Your task to perform on an android device: Open Google Maps and go to "Timeline" Image 0: 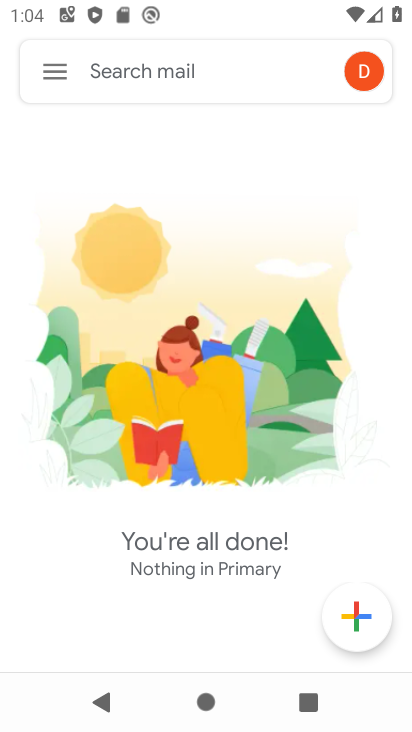
Step 0: press home button
Your task to perform on an android device: Open Google Maps and go to "Timeline" Image 1: 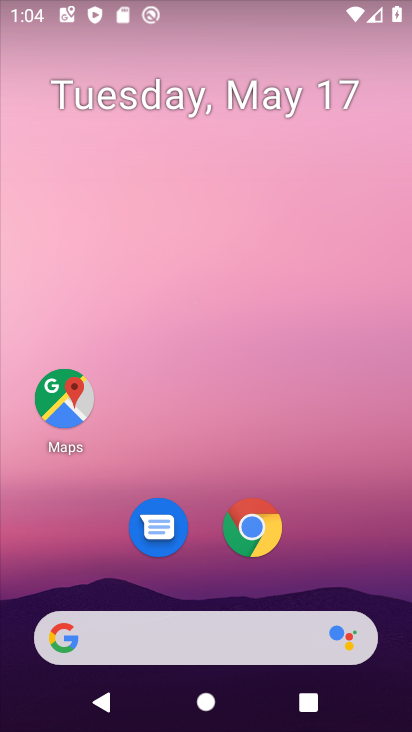
Step 1: drag from (62, 602) to (165, 87)
Your task to perform on an android device: Open Google Maps and go to "Timeline" Image 2: 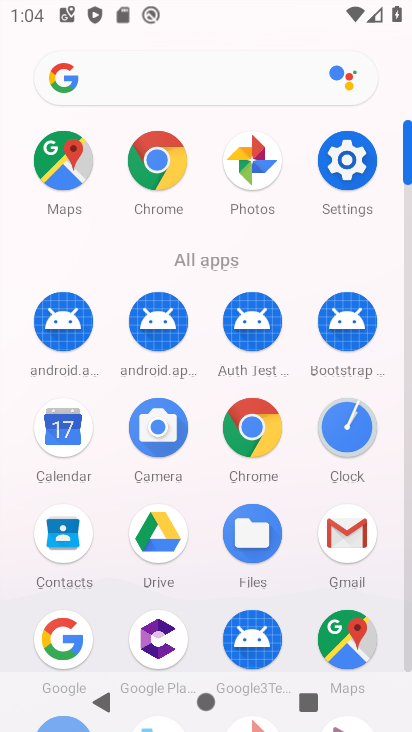
Step 2: click (353, 628)
Your task to perform on an android device: Open Google Maps and go to "Timeline" Image 3: 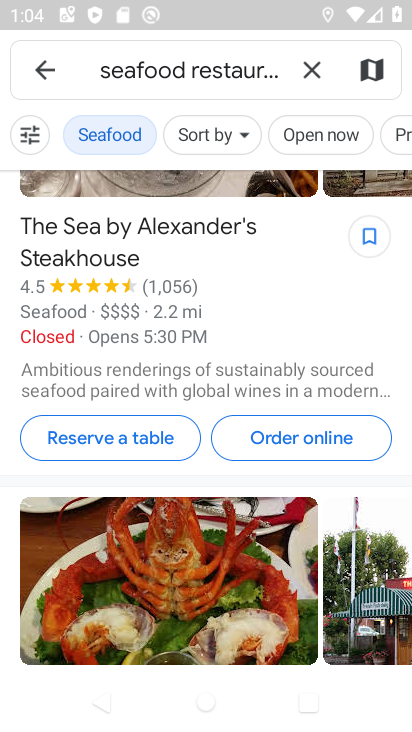
Step 3: click (57, 65)
Your task to perform on an android device: Open Google Maps and go to "Timeline" Image 4: 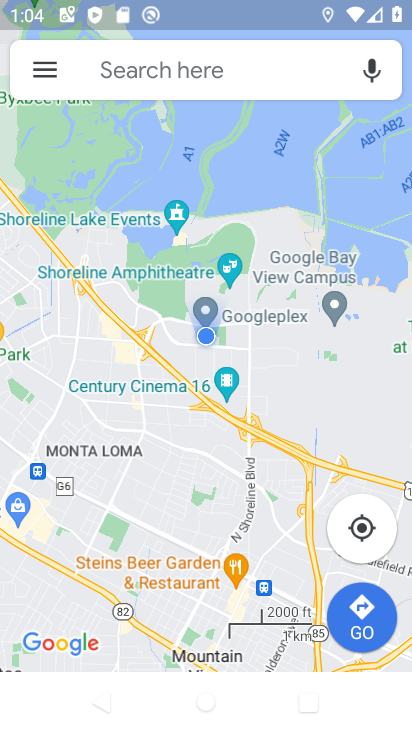
Step 4: click (49, 74)
Your task to perform on an android device: Open Google Maps and go to "Timeline" Image 5: 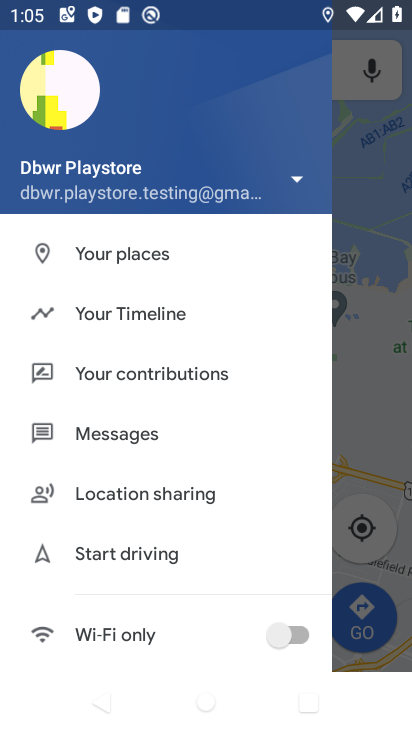
Step 5: click (155, 331)
Your task to perform on an android device: Open Google Maps and go to "Timeline" Image 6: 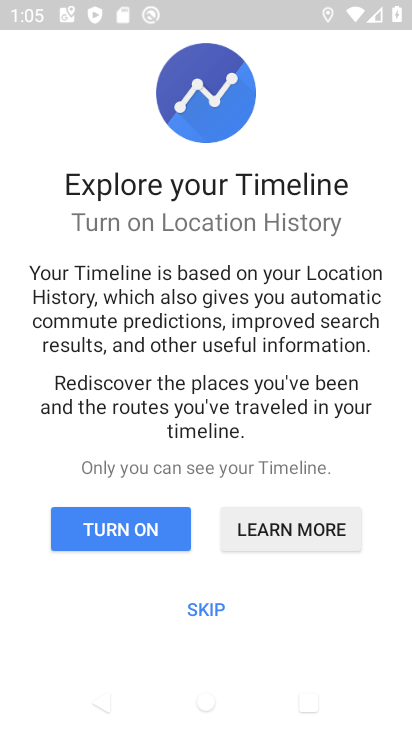
Step 6: click (204, 595)
Your task to perform on an android device: Open Google Maps and go to "Timeline" Image 7: 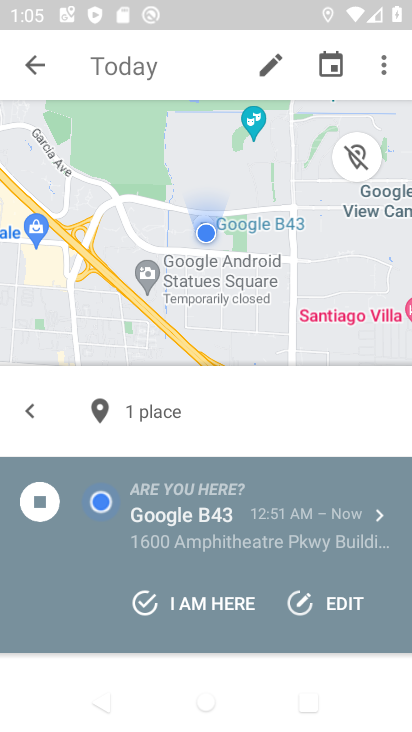
Step 7: task complete